Your task to perform on an android device: Go to privacy settings Image 0: 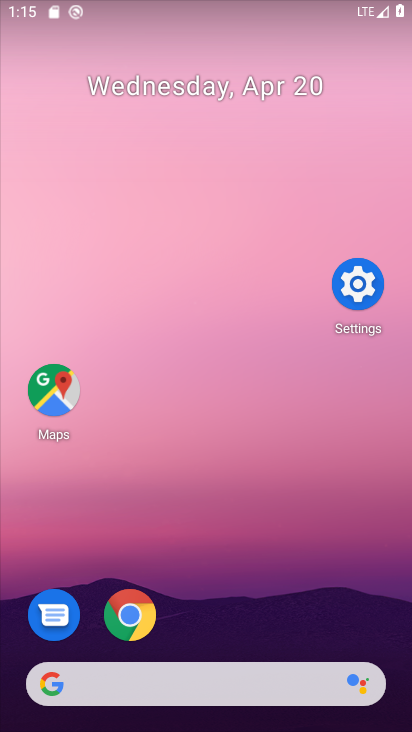
Step 0: drag from (190, 620) to (269, 34)
Your task to perform on an android device: Go to privacy settings Image 1: 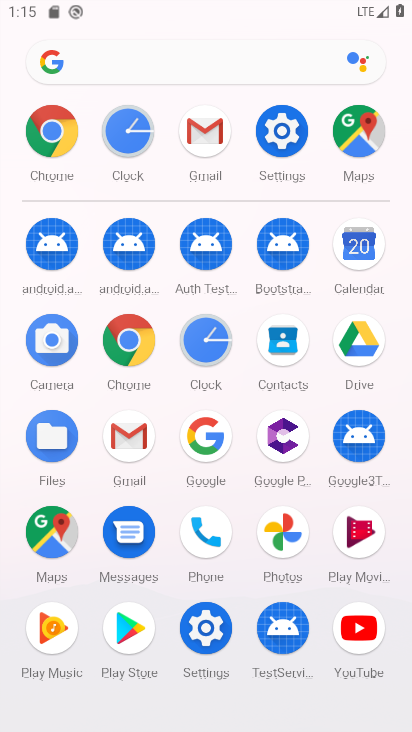
Step 1: click (283, 134)
Your task to perform on an android device: Go to privacy settings Image 2: 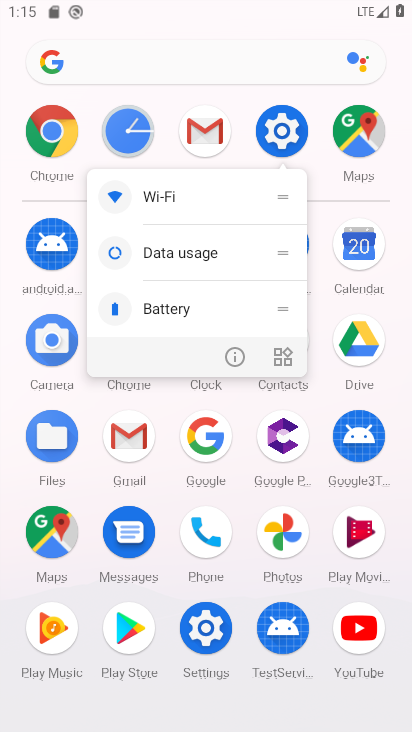
Step 2: click (228, 349)
Your task to perform on an android device: Go to privacy settings Image 3: 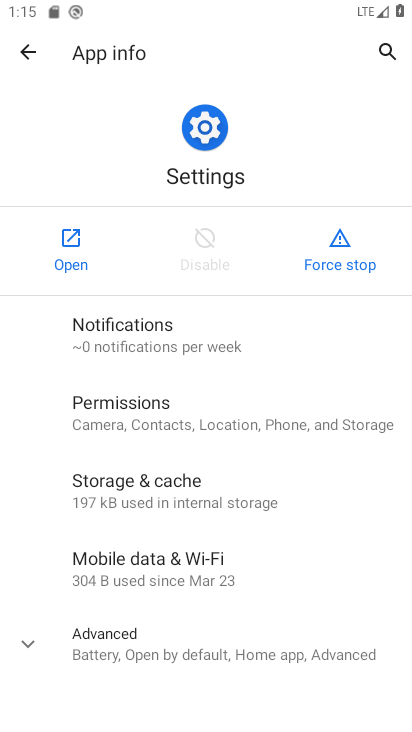
Step 3: click (76, 236)
Your task to perform on an android device: Go to privacy settings Image 4: 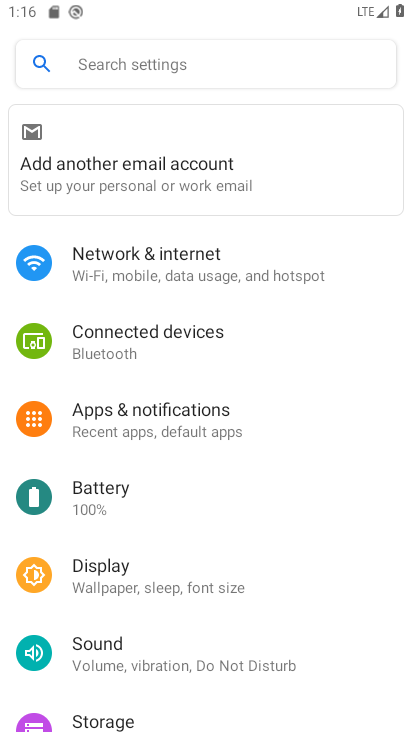
Step 4: drag from (243, 502) to (397, 108)
Your task to perform on an android device: Go to privacy settings Image 5: 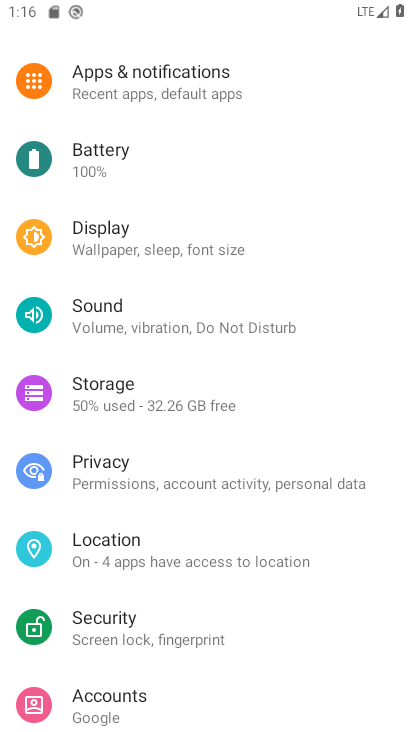
Step 5: click (136, 475)
Your task to perform on an android device: Go to privacy settings Image 6: 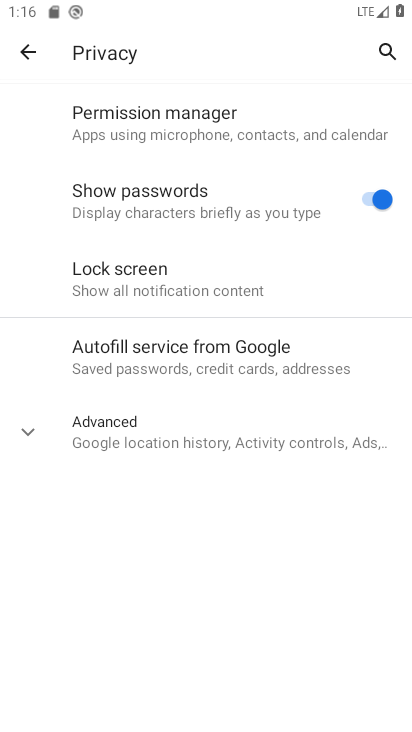
Step 6: task complete